Your task to perform on an android device: Go to network settings Image 0: 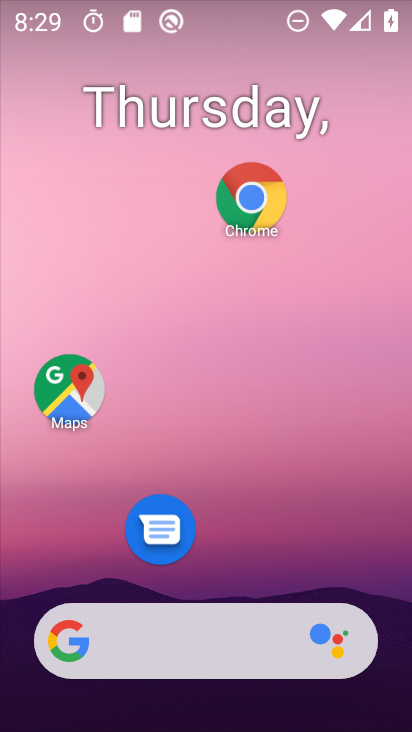
Step 0: drag from (224, 515) to (201, 2)
Your task to perform on an android device: Go to network settings Image 1: 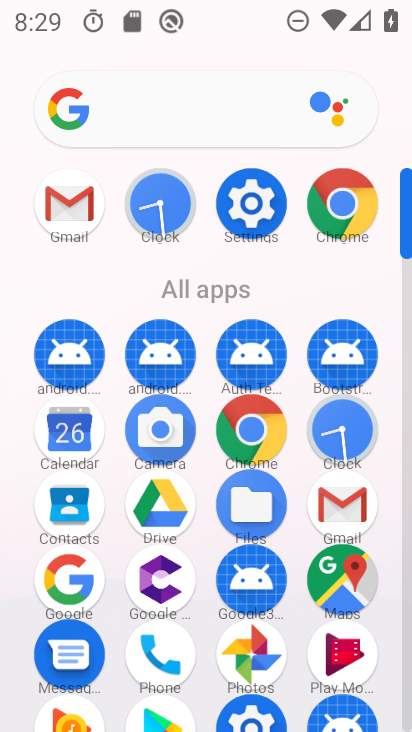
Step 1: click (254, 247)
Your task to perform on an android device: Go to network settings Image 2: 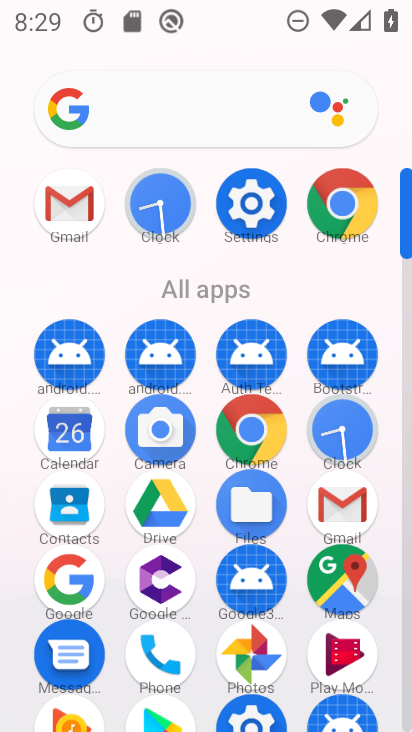
Step 2: click (253, 226)
Your task to perform on an android device: Go to network settings Image 3: 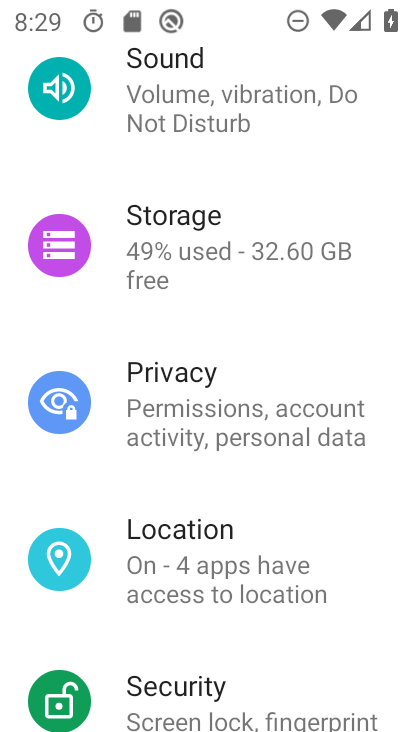
Step 3: drag from (231, 187) to (240, 501)
Your task to perform on an android device: Go to network settings Image 4: 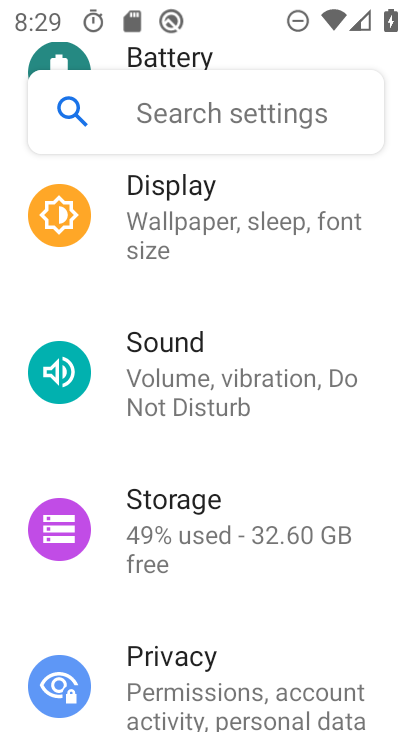
Step 4: drag from (204, 230) to (186, 562)
Your task to perform on an android device: Go to network settings Image 5: 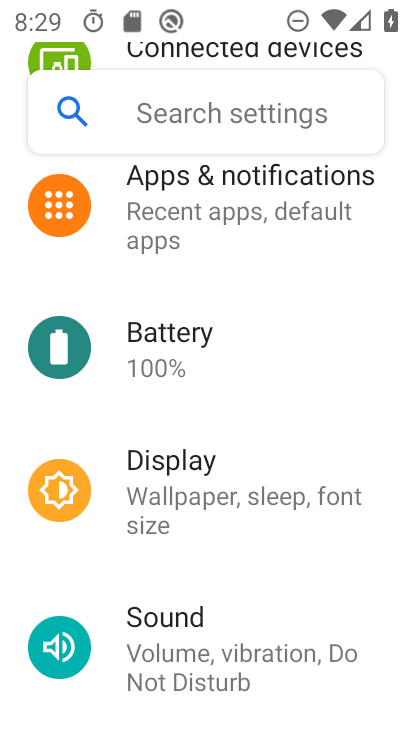
Step 5: drag from (202, 378) to (190, 719)
Your task to perform on an android device: Go to network settings Image 6: 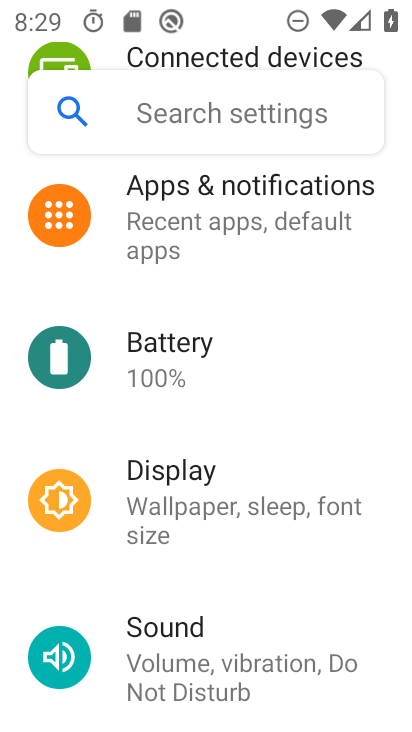
Step 6: drag from (201, 559) to (201, 594)
Your task to perform on an android device: Go to network settings Image 7: 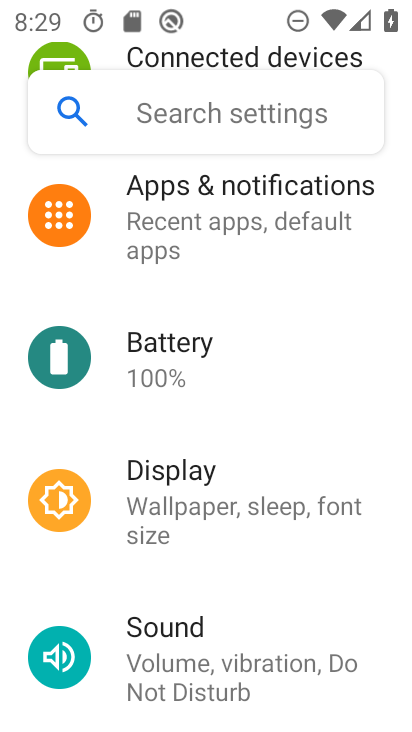
Step 7: drag from (201, 254) to (187, 537)
Your task to perform on an android device: Go to network settings Image 8: 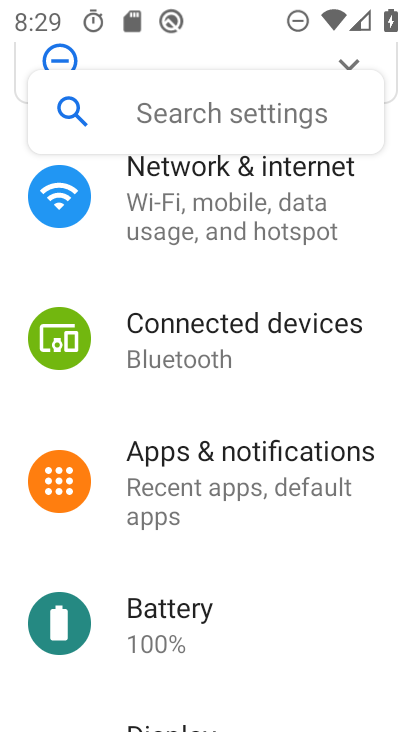
Step 8: click (155, 231)
Your task to perform on an android device: Go to network settings Image 9: 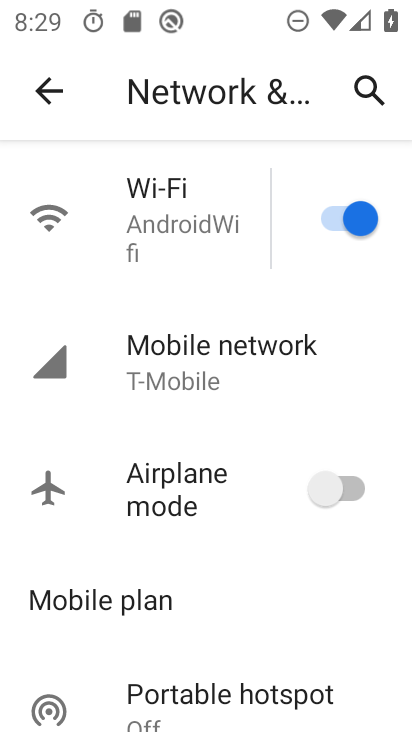
Step 9: task complete